Your task to perform on an android device: Open ESPN.com Image 0: 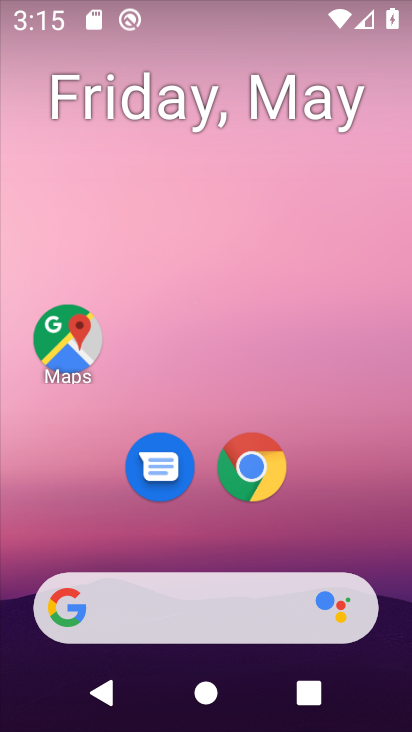
Step 0: click (260, 462)
Your task to perform on an android device: Open ESPN.com Image 1: 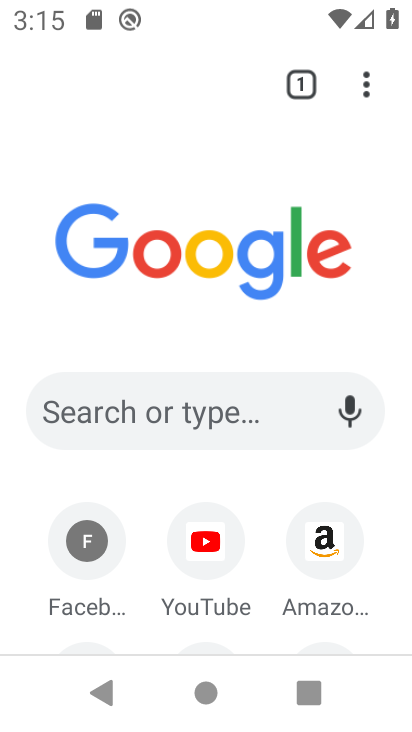
Step 1: drag from (271, 522) to (264, 220)
Your task to perform on an android device: Open ESPN.com Image 2: 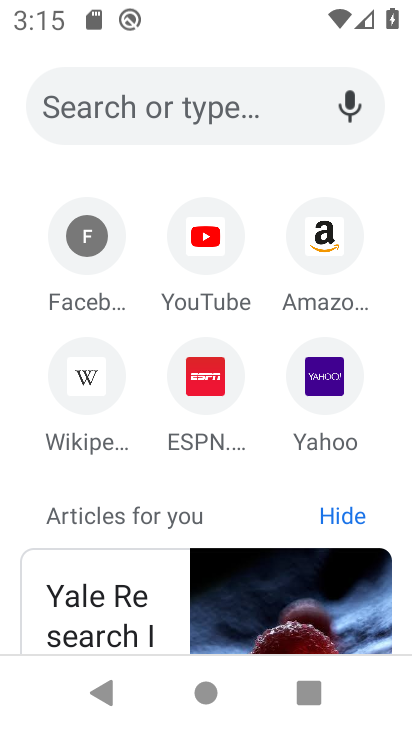
Step 2: click (203, 382)
Your task to perform on an android device: Open ESPN.com Image 3: 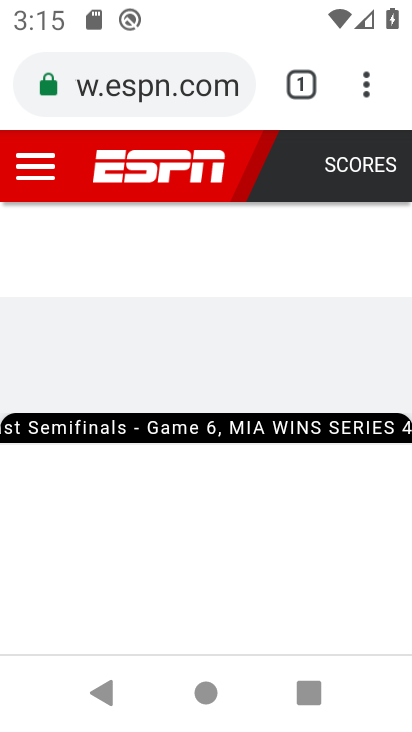
Step 3: task complete